Your task to perform on an android device: toggle airplane mode Image 0: 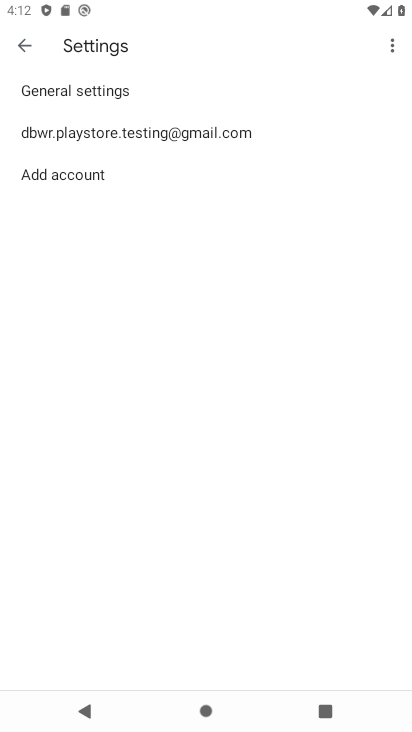
Step 0: press home button
Your task to perform on an android device: toggle airplane mode Image 1: 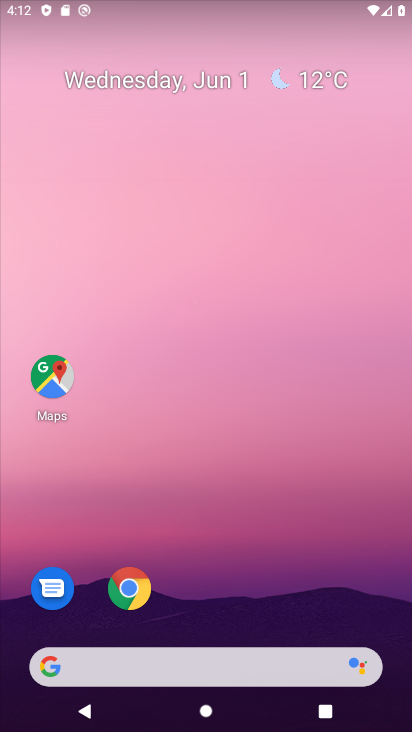
Step 1: drag from (317, 489) to (38, 226)
Your task to perform on an android device: toggle airplane mode Image 2: 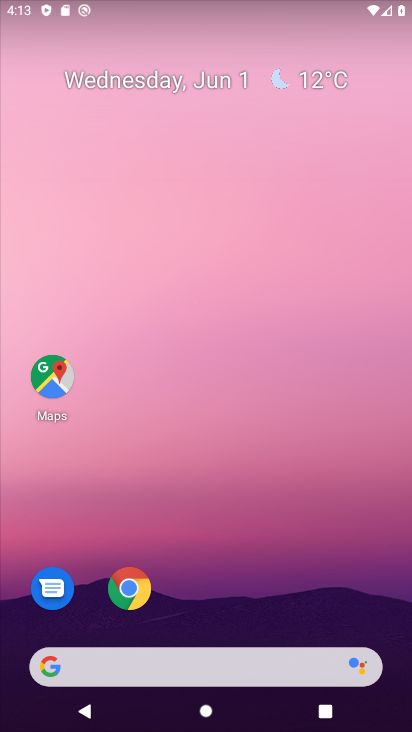
Step 2: drag from (330, 560) to (279, 10)
Your task to perform on an android device: toggle airplane mode Image 3: 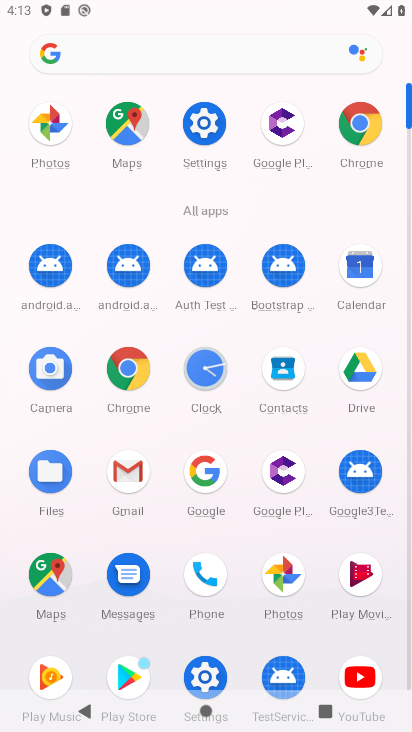
Step 3: click (201, 131)
Your task to perform on an android device: toggle airplane mode Image 4: 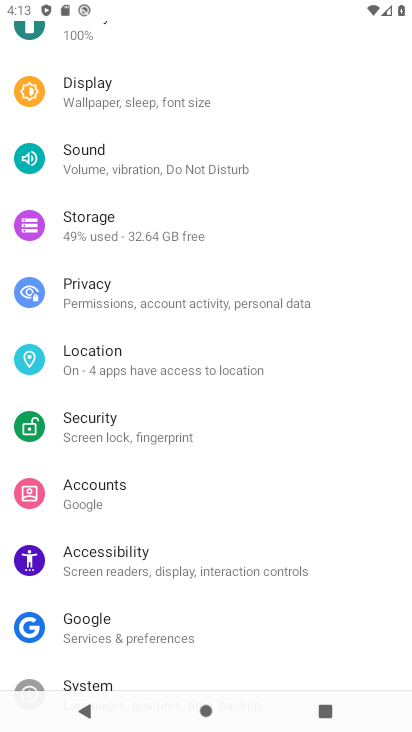
Step 4: drag from (201, 130) to (284, 613)
Your task to perform on an android device: toggle airplane mode Image 5: 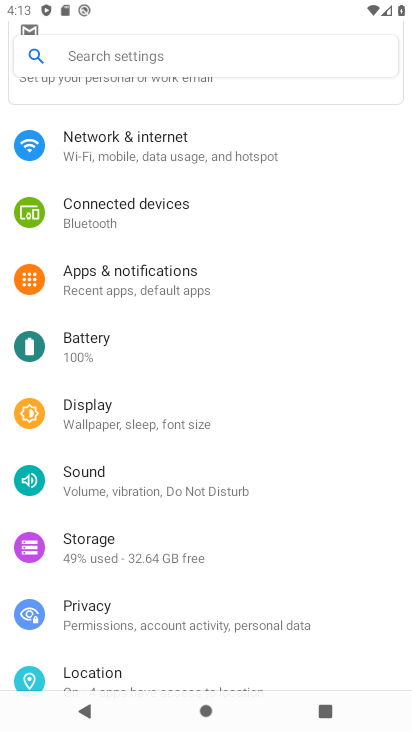
Step 5: drag from (186, 132) to (263, 565)
Your task to perform on an android device: toggle airplane mode Image 6: 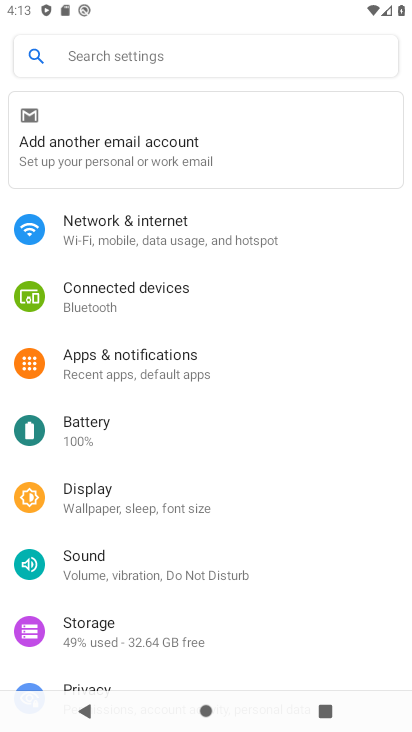
Step 6: click (162, 230)
Your task to perform on an android device: toggle airplane mode Image 7: 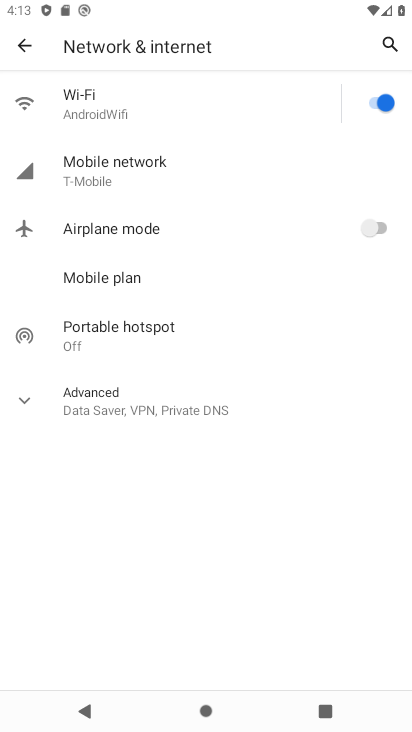
Step 7: click (366, 227)
Your task to perform on an android device: toggle airplane mode Image 8: 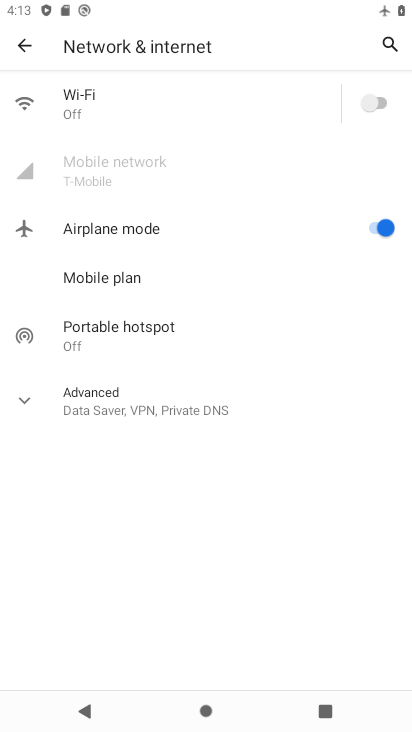
Step 8: task complete